Your task to perform on an android device: Open Youtube and go to the subscriptions tab Image 0: 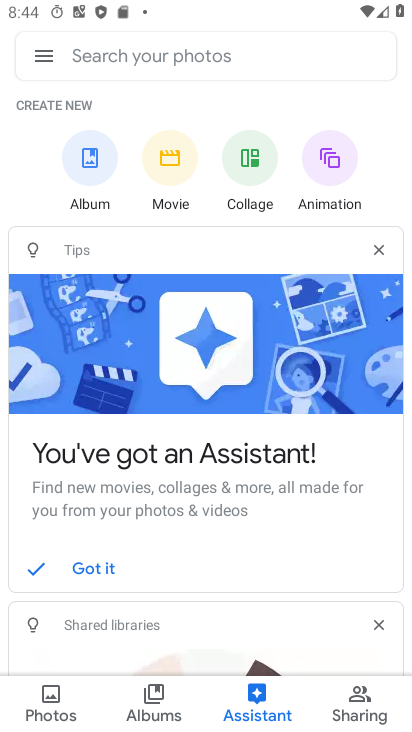
Step 0: press home button
Your task to perform on an android device: Open Youtube and go to the subscriptions tab Image 1: 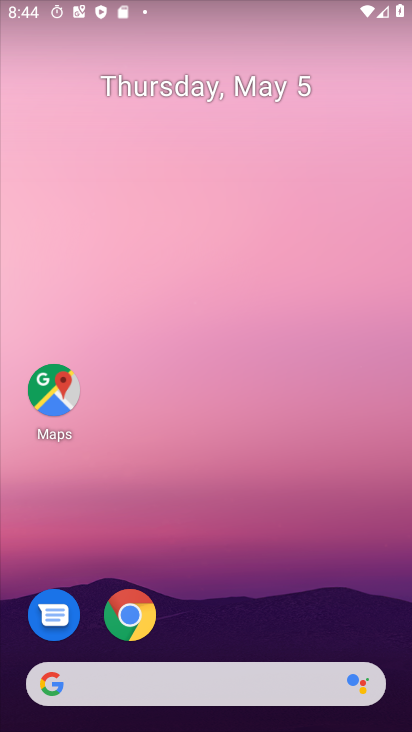
Step 1: drag from (206, 584) to (269, 2)
Your task to perform on an android device: Open Youtube and go to the subscriptions tab Image 2: 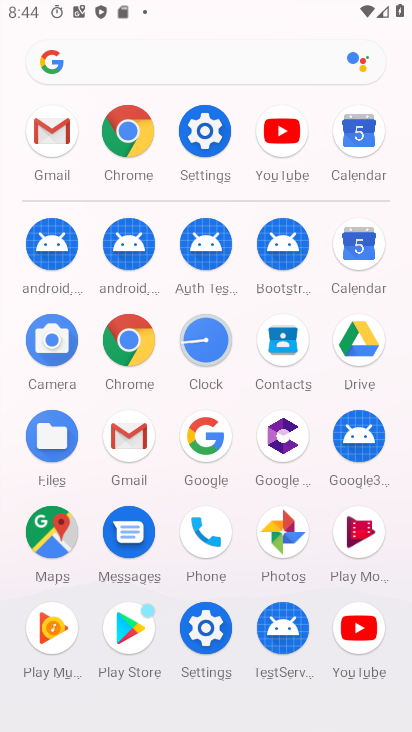
Step 2: click (294, 158)
Your task to perform on an android device: Open Youtube and go to the subscriptions tab Image 3: 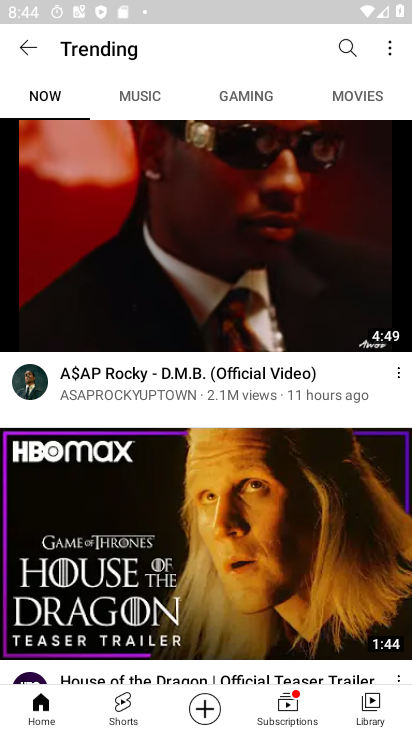
Step 3: click (23, 42)
Your task to perform on an android device: Open Youtube and go to the subscriptions tab Image 4: 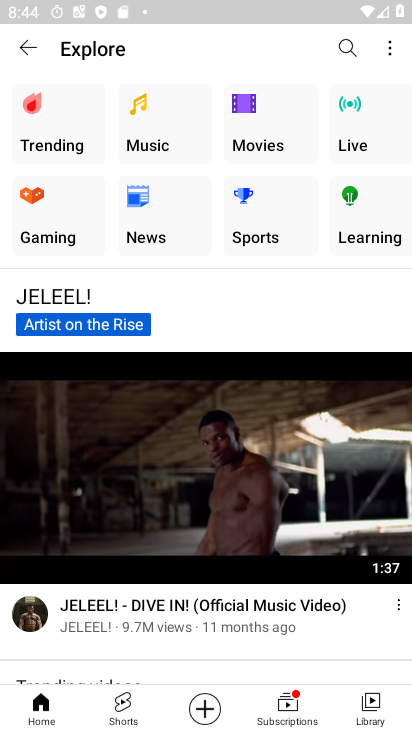
Step 4: click (278, 714)
Your task to perform on an android device: Open Youtube and go to the subscriptions tab Image 5: 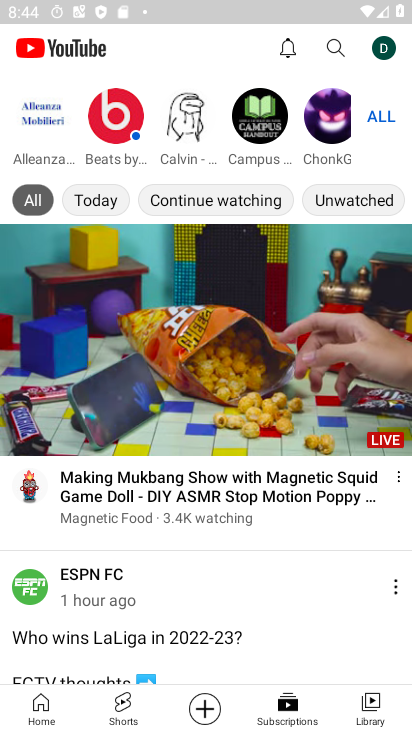
Step 5: task complete